Your task to perform on an android device: toggle notification dots Image 0: 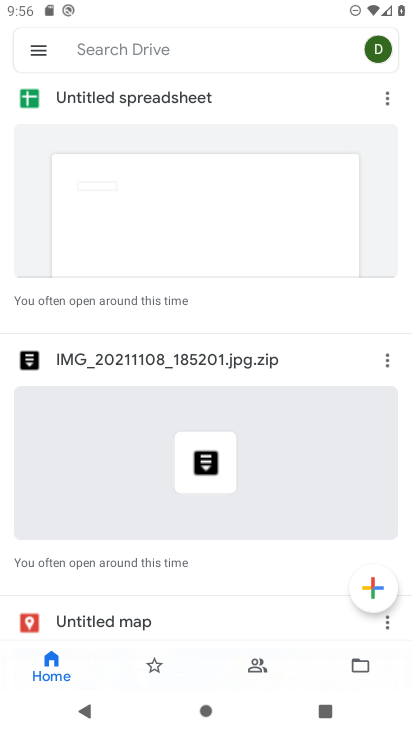
Step 0: press home button
Your task to perform on an android device: toggle notification dots Image 1: 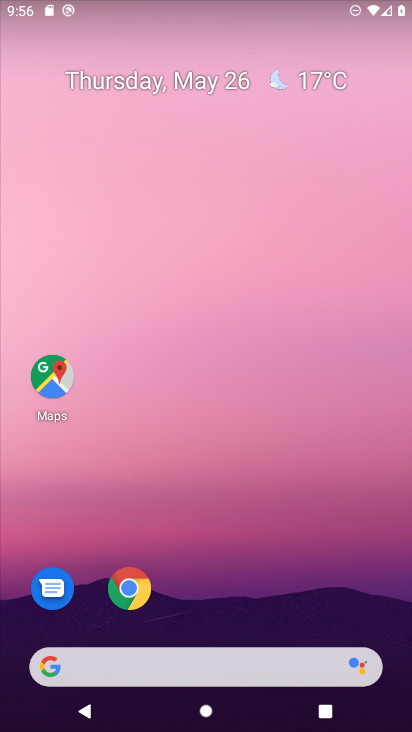
Step 1: drag from (383, 618) to (303, 14)
Your task to perform on an android device: toggle notification dots Image 2: 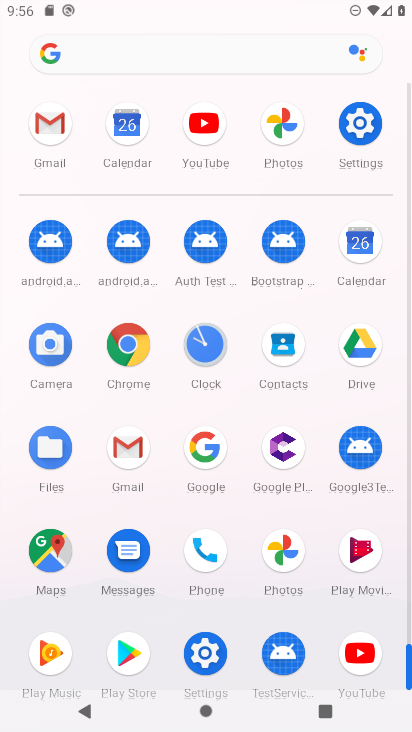
Step 2: click (204, 655)
Your task to perform on an android device: toggle notification dots Image 3: 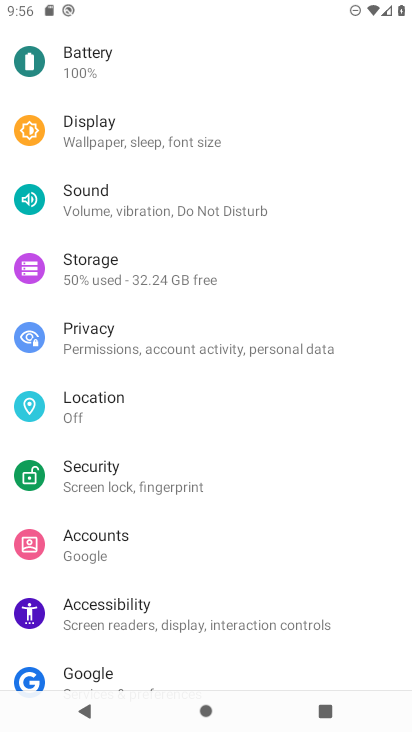
Step 3: drag from (278, 141) to (270, 489)
Your task to perform on an android device: toggle notification dots Image 4: 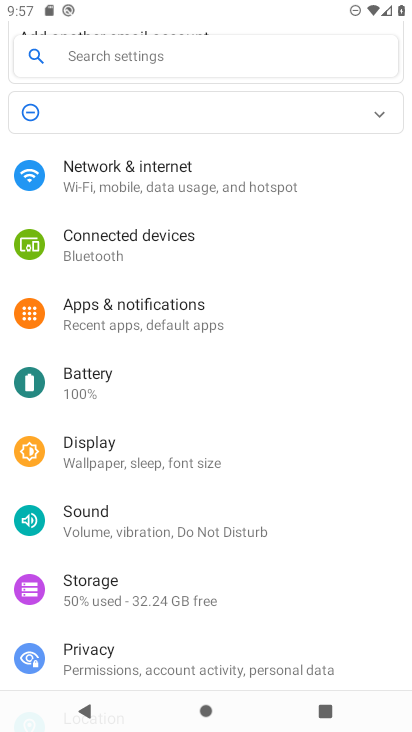
Step 4: click (132, 299)
Your task to perform on an android device: toggle notification dots Image 5: 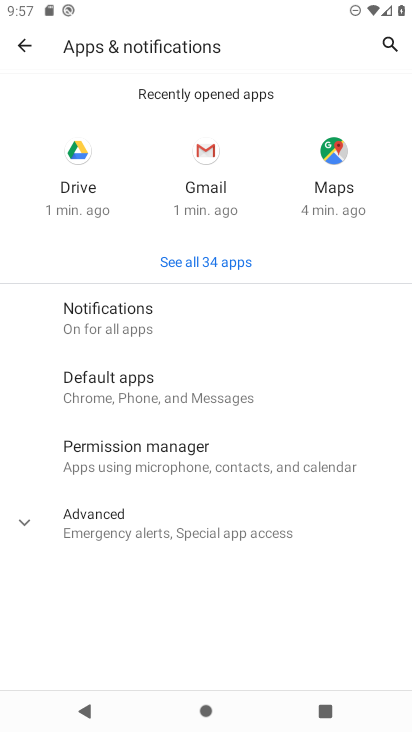
Step 5: click (108, 299)
Your task to perform on an android device: toggle notification dots Image 6: 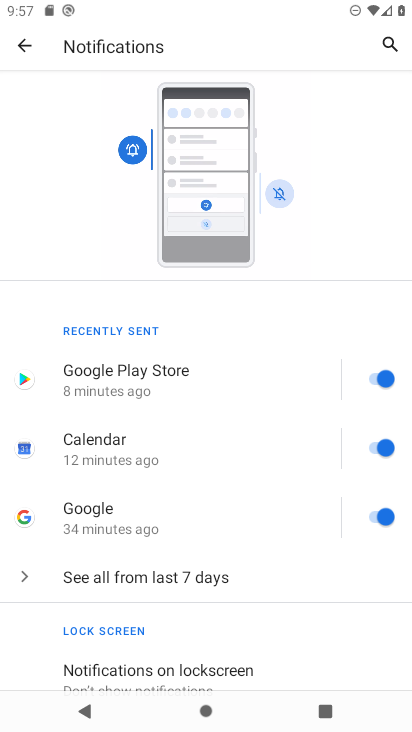
Step 6: drag from (193, 633) to (180, 142)
Your task to perform on an android device: toggle notification dots Image 7: 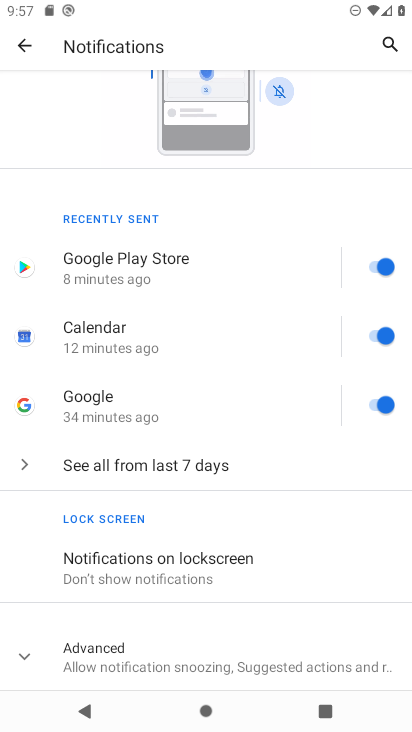
Step 7: click (29, 651)
Your task to perform on an android device: toggle notification dots Image 8: 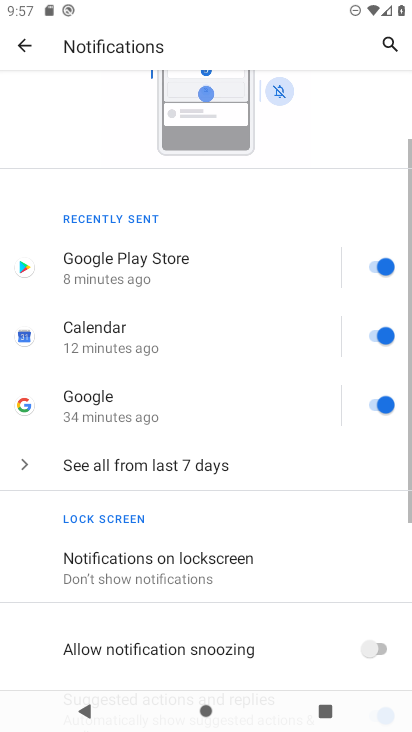
Step 8: drag from (269, 616) to (231, 116)
Your task to perform on an android device: toggle notification dots Image 9: 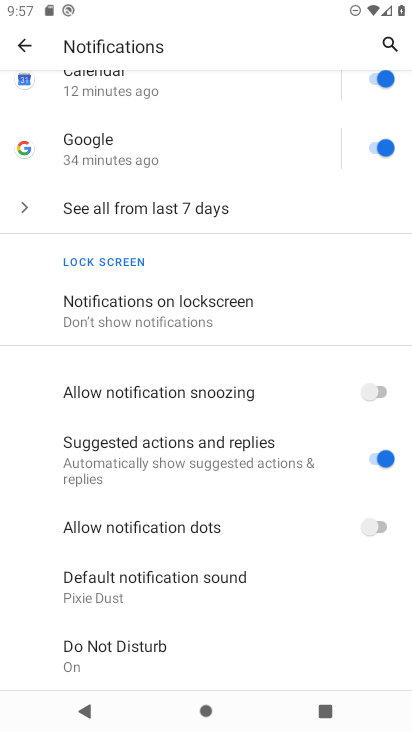
Step 9: click (377, 519)
Your task to perform on an android device: toggle notification dots Image 10: 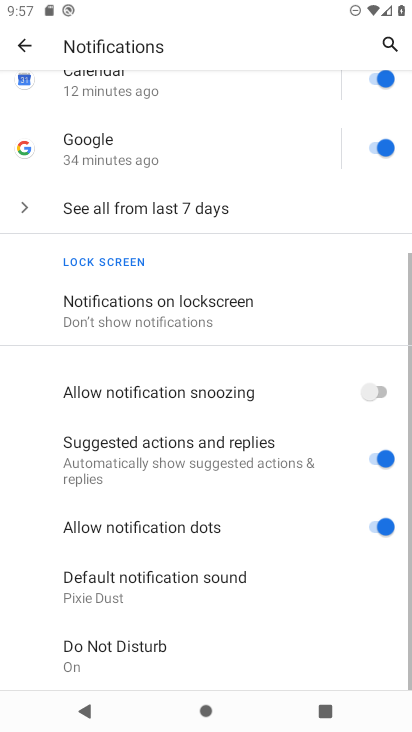
Step 10: task complete